Your task to perform on an android device: turn on javascript in the chrome app Image 0: 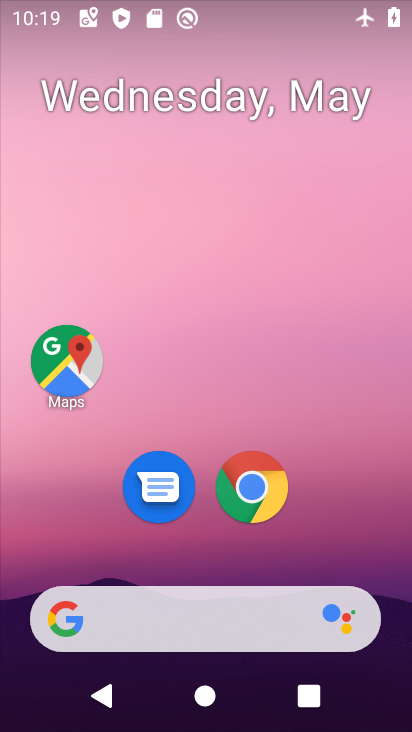
Step 0: drag from (197, 562) to (158, 62)
Your task to perform on an android device: turn on javascript in the chrome app Image 1: 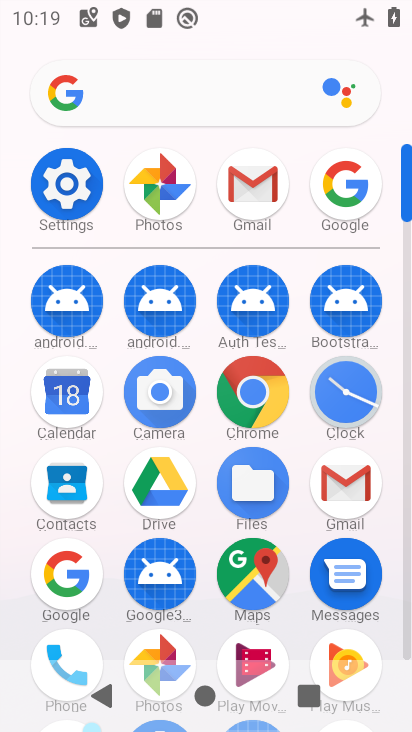
Step 1: click (258, 382)
Your task to perform on an android device: turn on javascript in the chrome app Image 2: 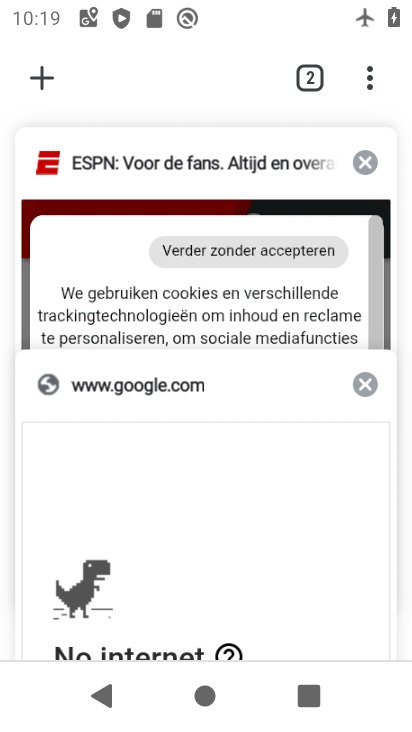
Step 2: click (367, 83)
Your task to perform on an android device: turn on javascript in the chrome app Image 3: 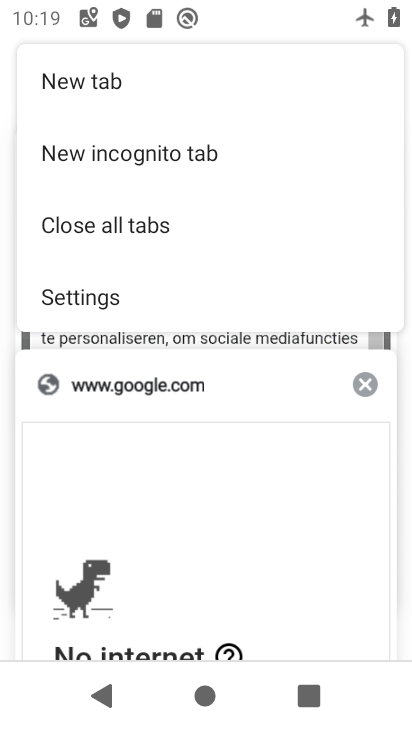
Step 3: click (104, 276)
Your task to perform on an android device: turn on javascript in the chrome app Image 4: 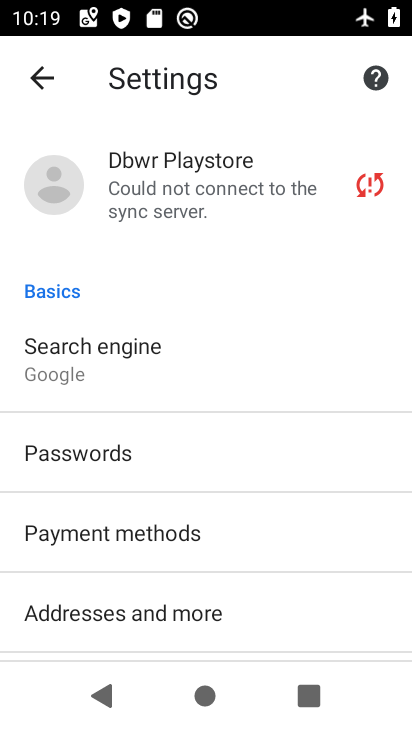
Step 4: drag from (174, 580) to (126, 138)
Your task to perform on an android device: turn on javascript in the chrome app Image 5: 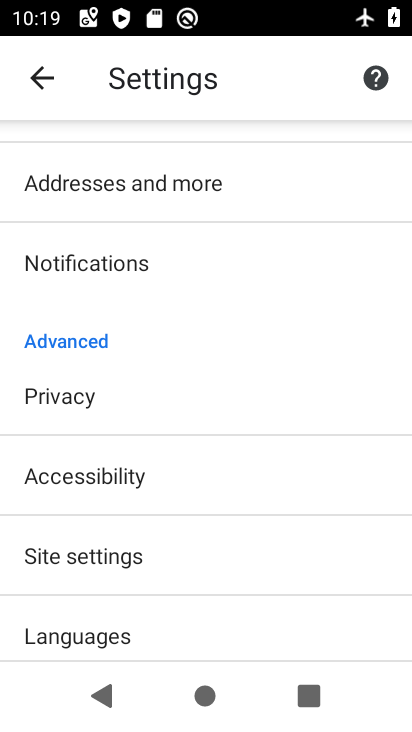
Step 5: click (86, 521)
Your task to perform on an android device: turn on javascript in the chrome app Image 6: 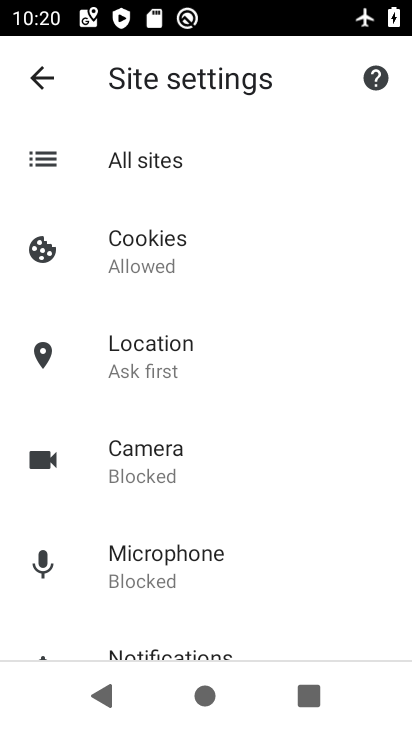
Step 6: drag from (201, 588) to (182, 157)
Your task to perform on an android device: turn on javascript in the chrome app Image 7: 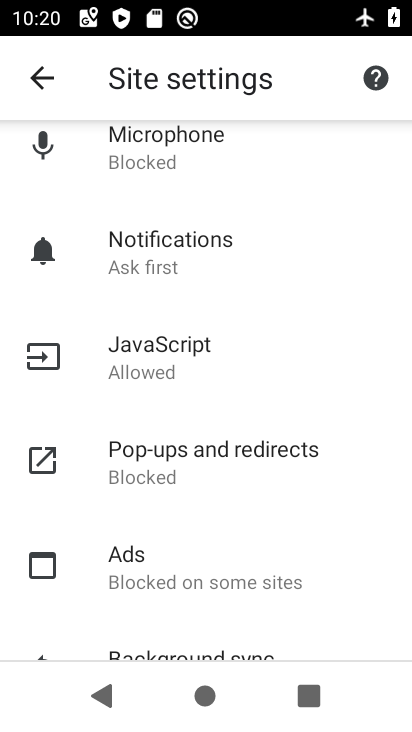
Step 7: click (171, 350)
Your task to perform on an android device: turn on javascript in the chrome app Image 8: 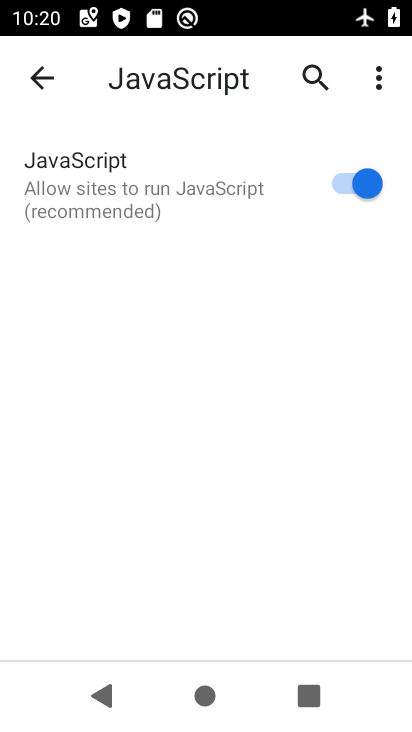
Step 8: task complete